Your task to perform on an android device: Play the last video I watched on Youtube Image 0: 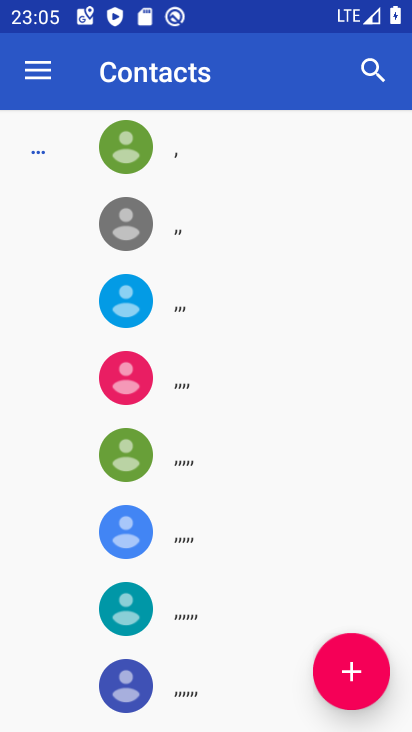
Step 0: press home button
Your task to perform on an android device: Play the last video I watched on Youtube Image 1: 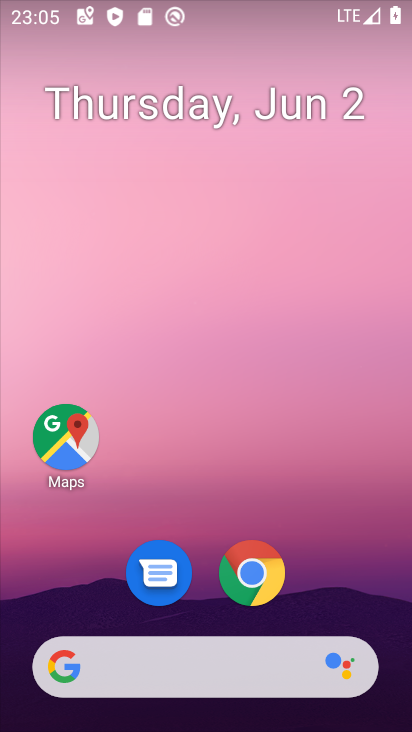
Step 1: drag from (381, 527) to (373, 452)
Your task to perform on an android device: Play the last video I watched on Youtube Image 2: 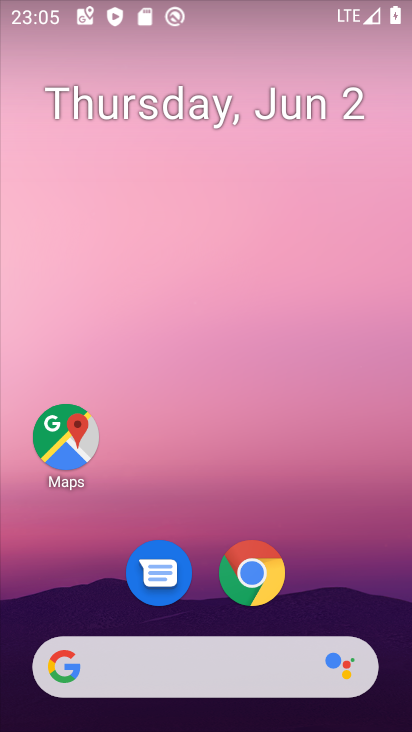
Step 2: drag from (368, 574) to (346, 181)
Your task to perform on an android device: Play the last video I watched on Youtube Image 3: 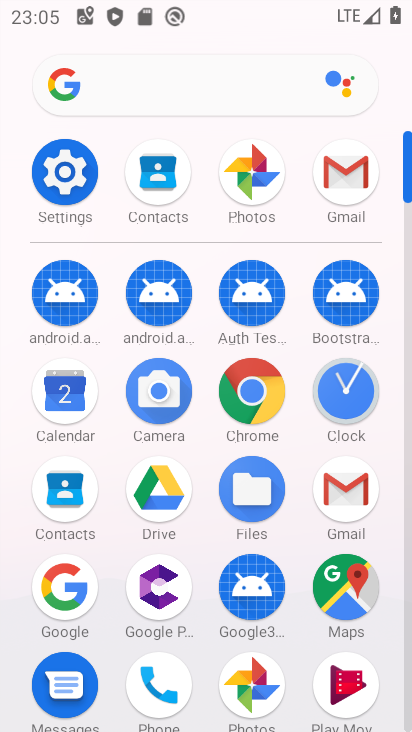
Step 3: drag from (302, 597) to (293, 405)
Your task to perform on an android device: Play the last video I watched on Youtube Image 4: 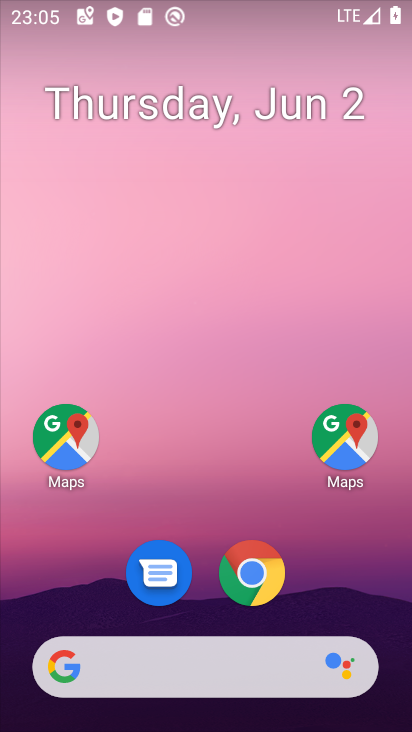
Step 4: drag from (356, 626) to (310, 113)
Your task to perform on an android device: Play the last video I watched on Youtube Image 5: 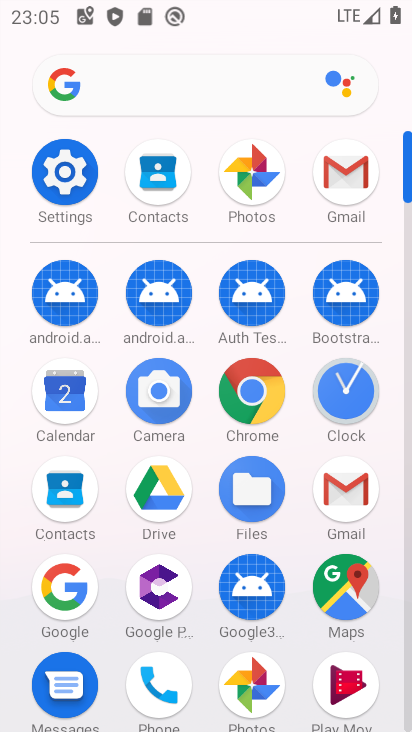
Step 5: click (402, 642)
Your task to perform on an android device: Play the last video I watched on Youtube Image 6: 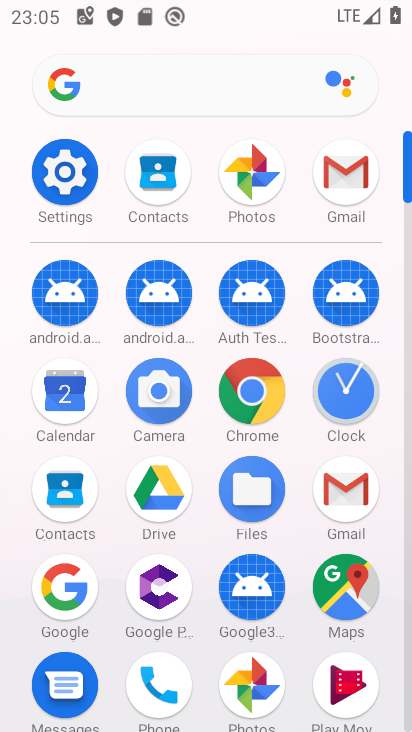
Step 6: drag from (404, 643) to (407, 568)
Your task to perform on an android device: Play the last video I watched on Youtube Image 7: 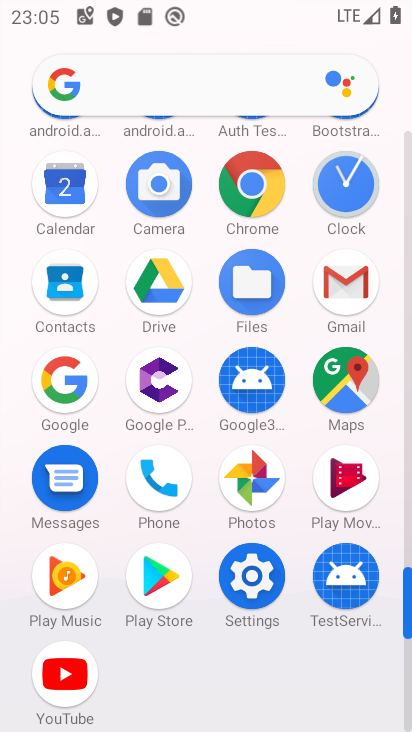
Step 7: click (56, 683)
Your task to perform on an android device: Play the last video I watched on Youtube Image 8: 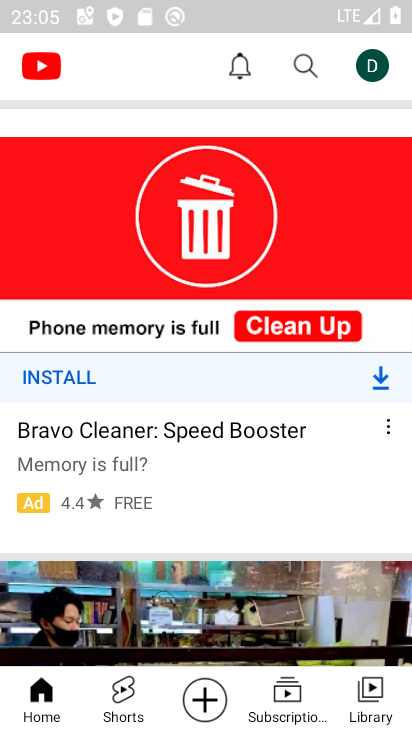
Step 8: click (367, 677)
Your task to perform on an android device: Play the last video I watched on Youtube Image 9: 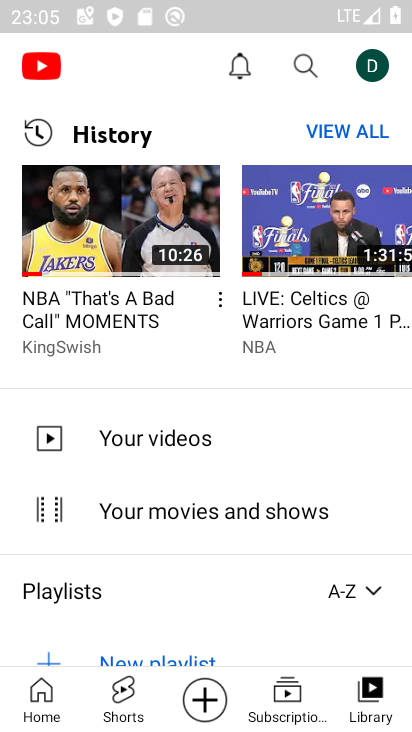
Step 9: click (103, 489)
Your task to perform on an android device: Play the last video I watched on Youtube Image 10: 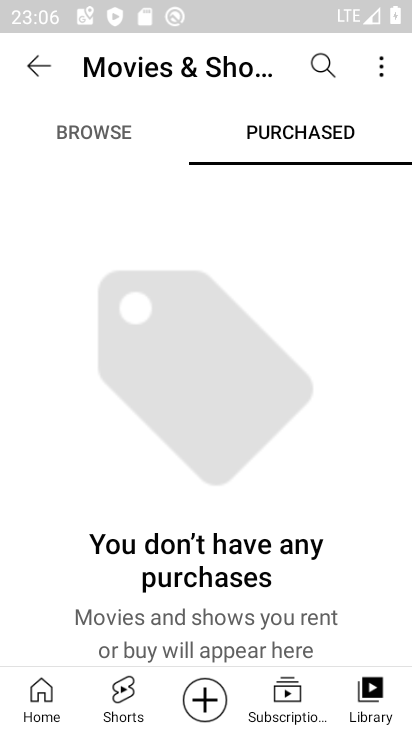
Step 10: click (370, 699)
Your task to perform on an android device: Play the last video I watched on Youtube Image 11: 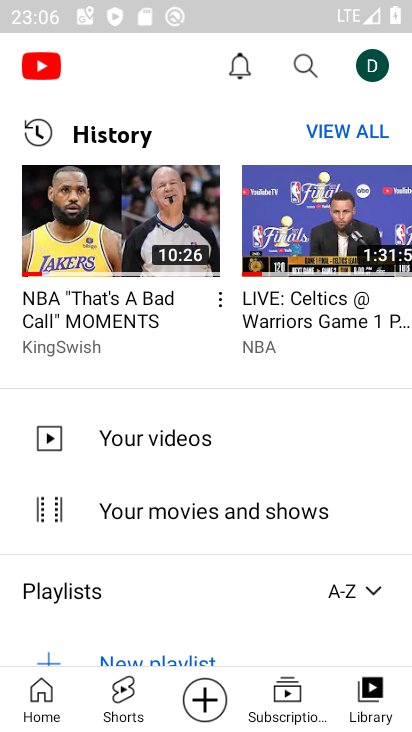
Step 11: drag from (210, 598) to (237, 457)
Your task to perform on an android device: Play the last video I watched on Youtube Image 12: 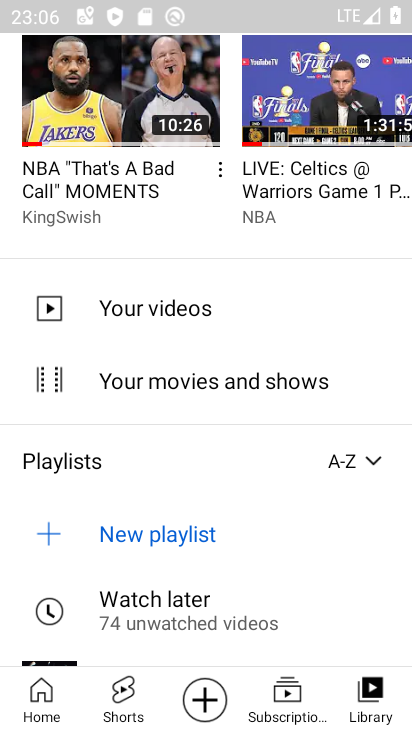
Step 12: click (150, 113)
Your task to perform on an android device: Play the last video I watched on Youtube Image 13: 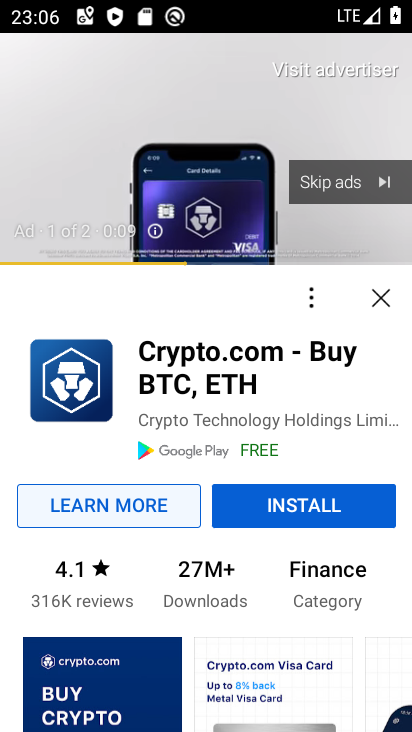
Step 13: click (373, 171)
Your task to perform on an android device: Play the last video I watched on Youtube Image 14: 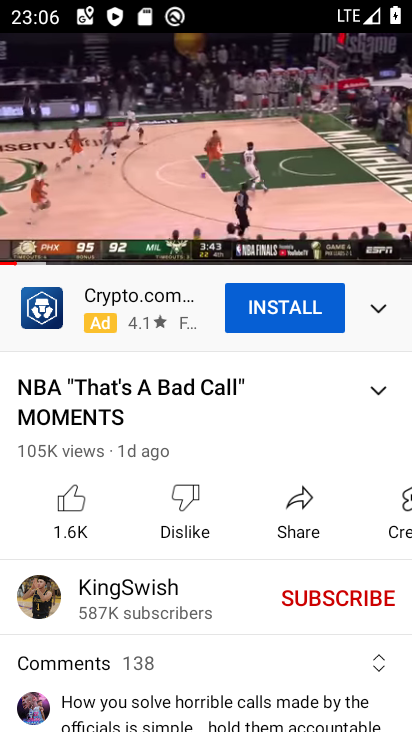
Step 14: task complete